Your task to perform on an android device: Open maps Image 0: 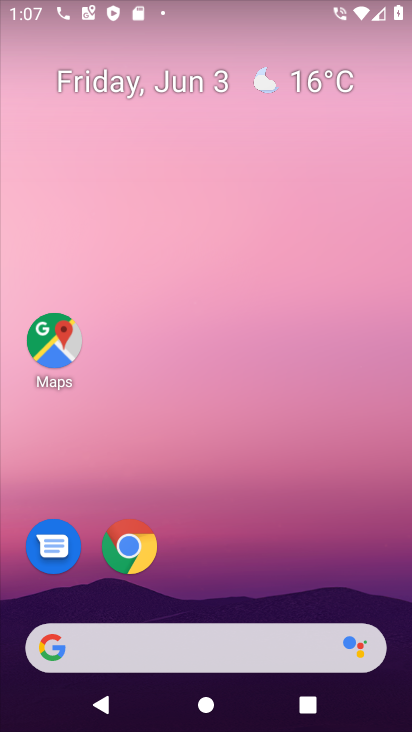
Step 0: click (62, 351)
Your task to perform on an android device: Open maps Image 1: 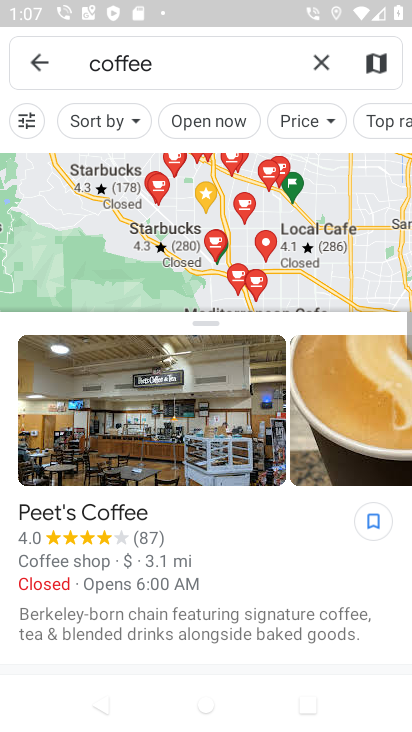
Step 1: click (323, 59)
Your task to perform on an android device: Open maps Image 2: 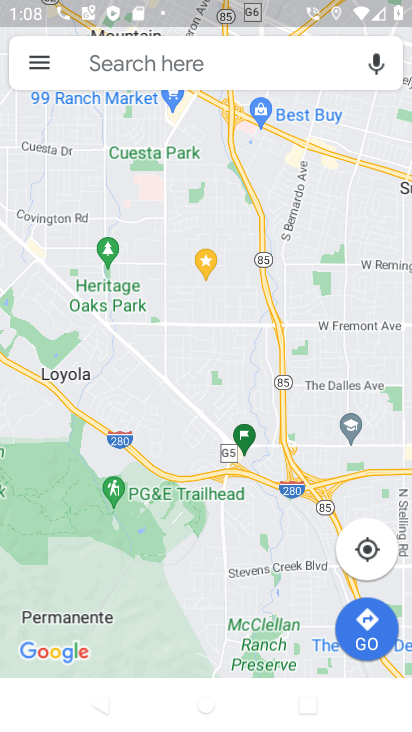
Step 2: task complete